Your task to perform on an android device: open wifi settings Image 0: 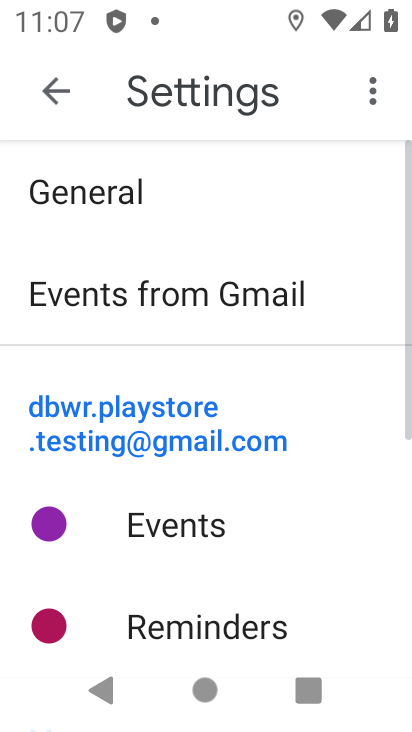
Step 0: press home button
Your task to perform on an android device: open wifi settings Image 1: 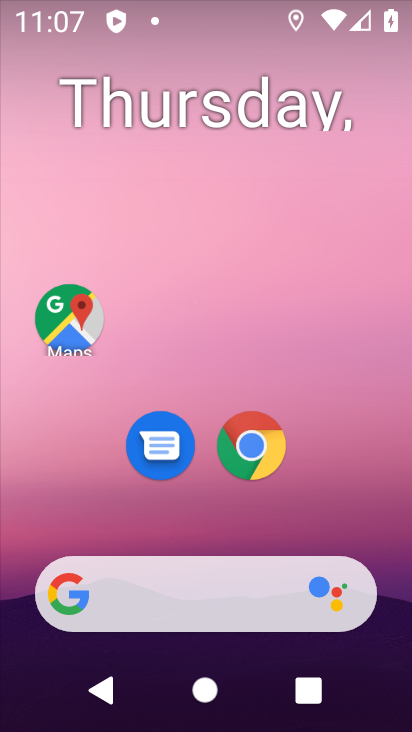
Step 1: drag from (399, 582) to (301, 100)
Your task to perform on an android device: open wifi settings Image 2: 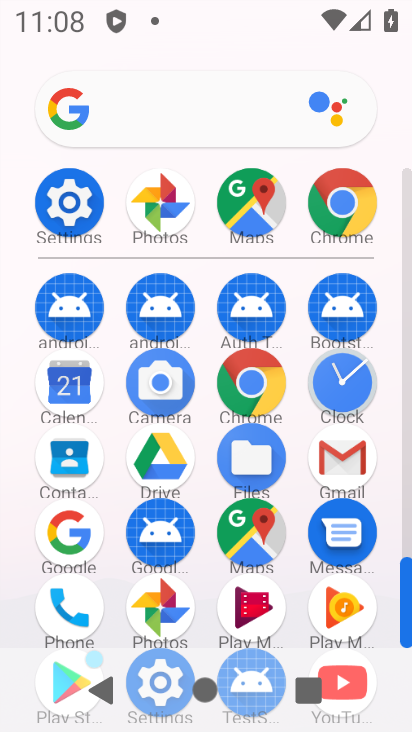
Step 2: click (55, 216)
Your task to perform on an android device: open wifi settings Image 3: 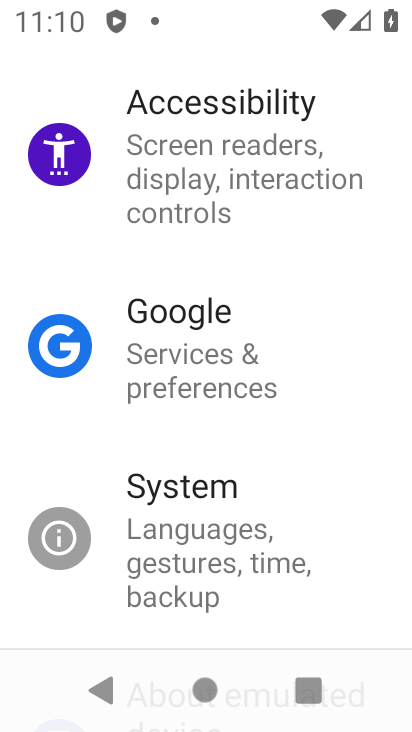
Step 3: drag from (231, 130) to (184, 652)
Your task to perform on an android device: open wifi settings Image 4: 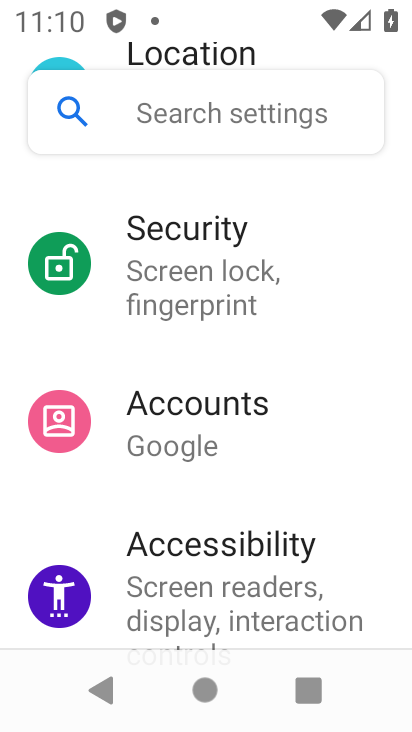
Step 4: drag from (176, 201) to (190, 651)
Your task to perform on an android device: open wifi settings Image 5: 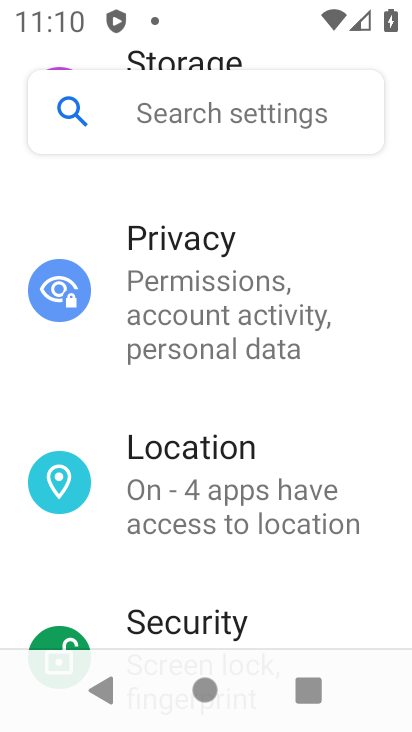
Step 5: drag from (181, 224) to (159, 725)
Your task to perform on an android device: open wifi settings Image 6: 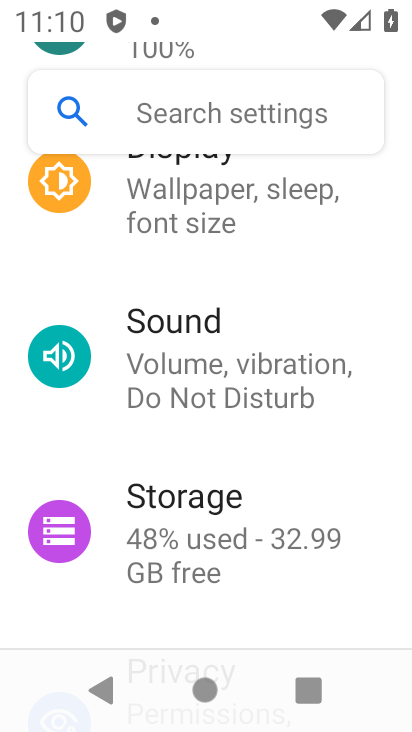
Step 6: drag from (197, 266) to (179, 693)
Your task to perform on an android device: open wifi settings Image 7: 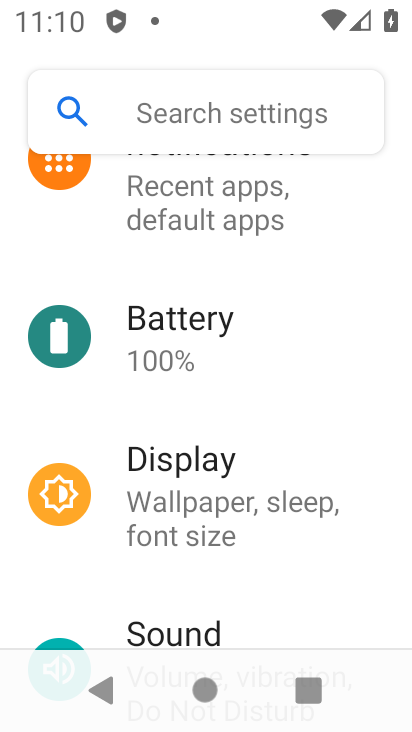
Step 7: drag from (246, 260) to (219, 598)
Your task to perform on an android device: open wifi settings Image 8: 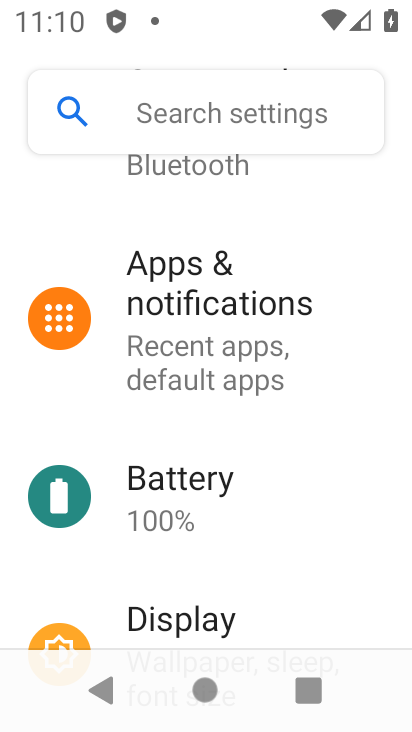
Step 8: drag from (209, 178) to (159, 544)
Your task to perform on an android device: open wifi settings Image 9: 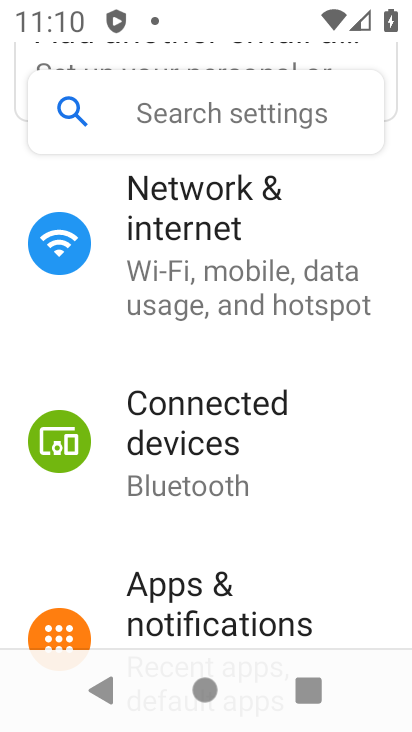
Step 9: drag from (163, 228) to (162, 565)
Your task to perform on an android device: open wifi settings Image 10: 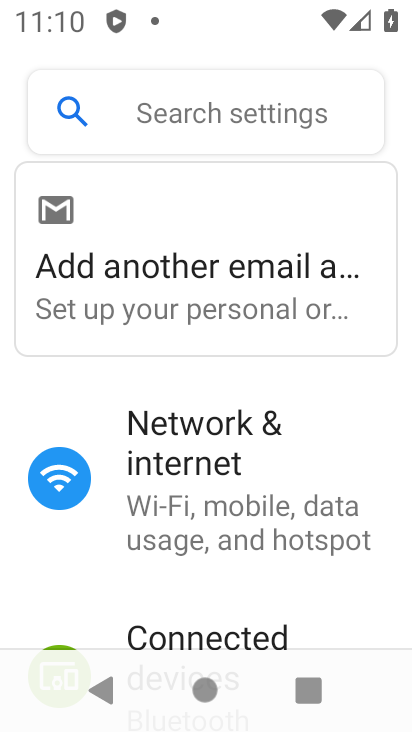
Step 10: click (183, 507)
Your task to perform on an android device: open wifi settings Image 11: 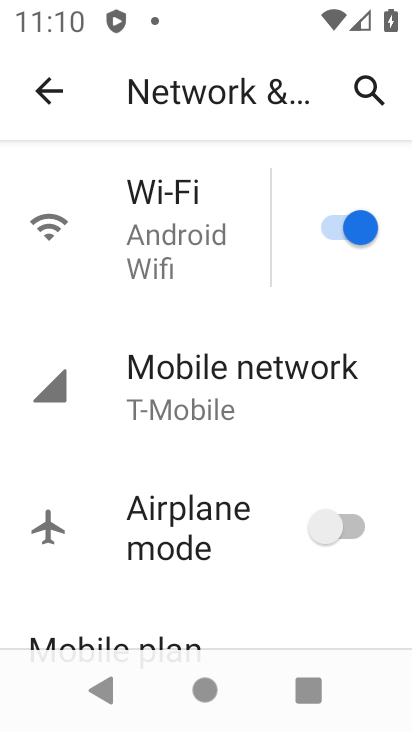
Step 11: click (153, 214)
Your task to perform on an android device: open wifi settings Image 12: 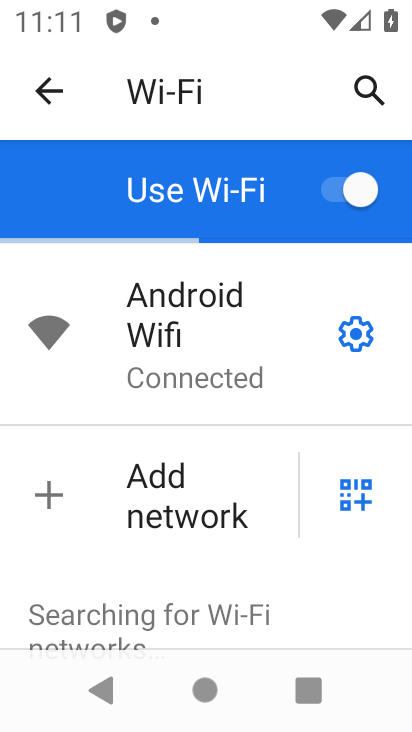
Step 12: task complete